Your task to perform on an android device: Open eBay Image 0: 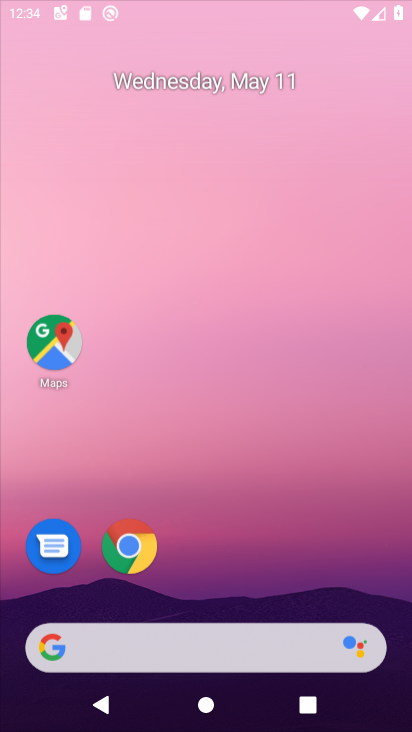
Step 0: click (209, 321)
Your task to perform on an android device: Open eBay Image 1: 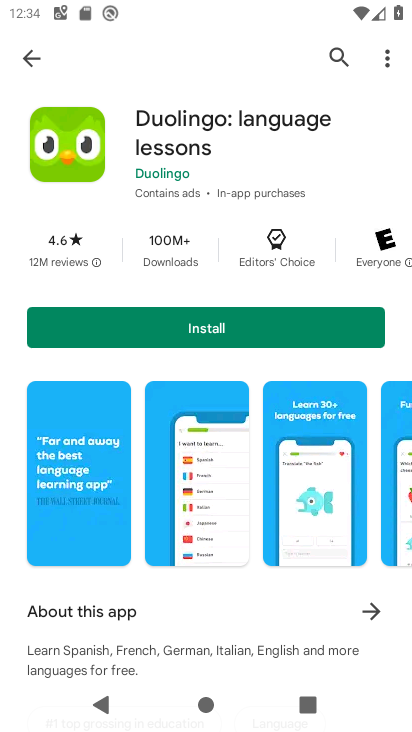
Step 1: press home button
Your task to perform on an android device: Open eBay Image 2: 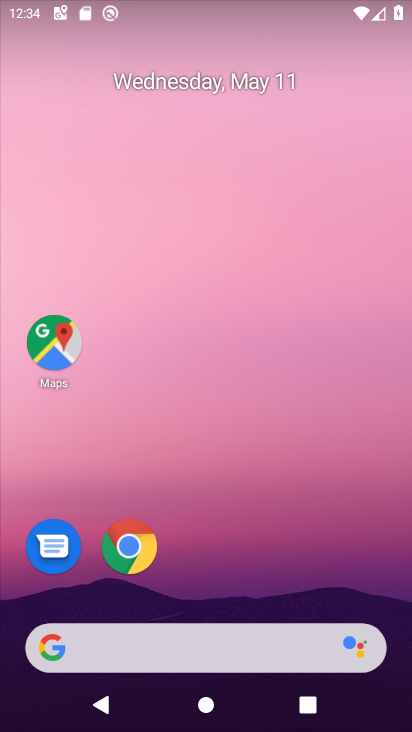
Step 2: drag from (254, 545) to (213, 266)
Your task to perform on an android device: Open eBay Image 3: 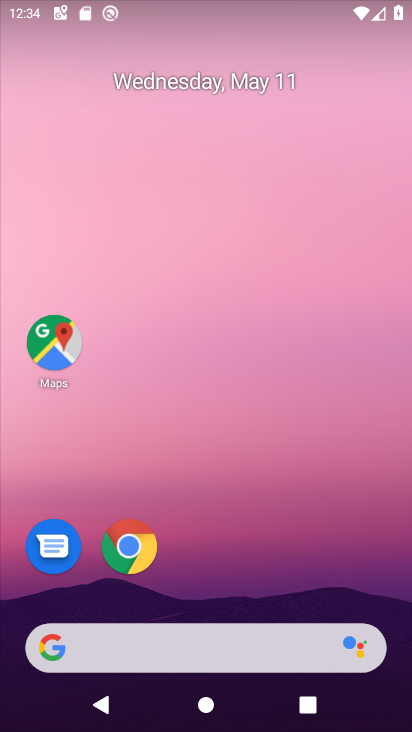
Step 3: drag from (228, 582) to (237, 271)
Your task to perform on an android device: Open eBay Image 4: 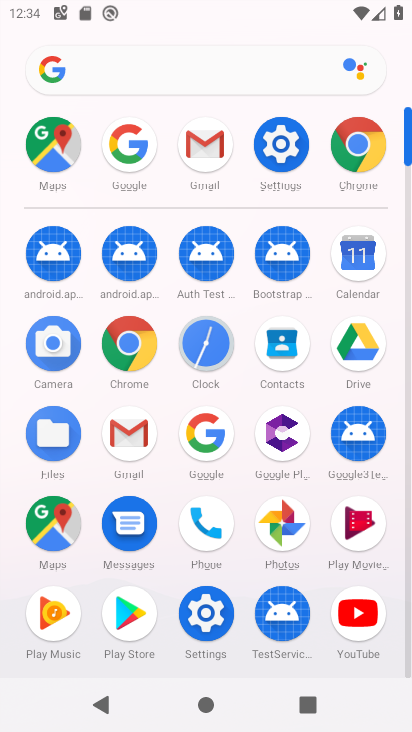
Step 4: click (350, 146)
Your task to perform on an android device: Open eBay Image 5: 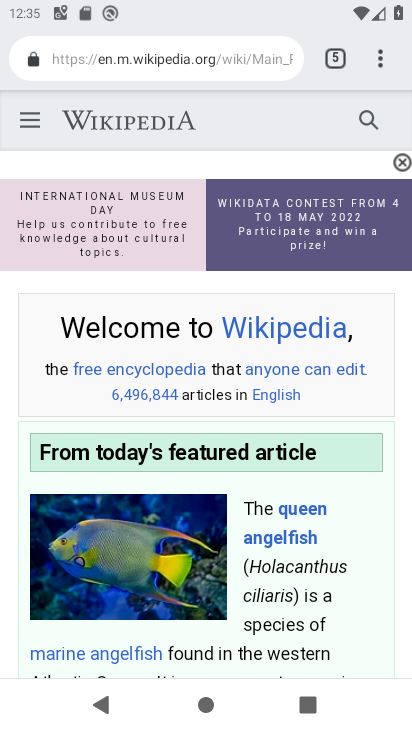
Step 5: click (367, 62)
Your task to perform on an android device: Open eBay Image 6: 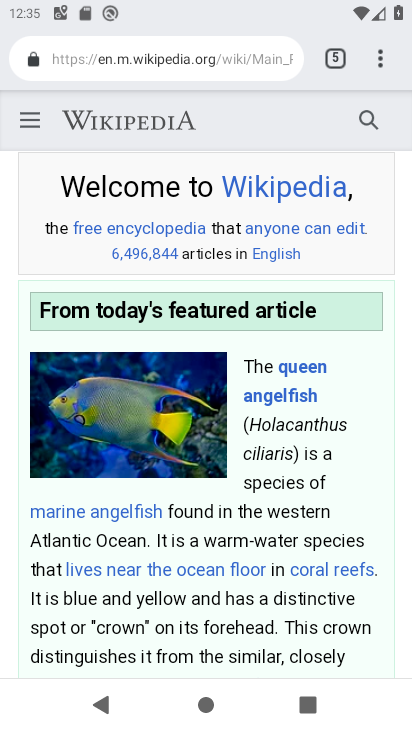
Step 6: click (367, 46)
Your task to perform on an android device: Open eBay Image 7: 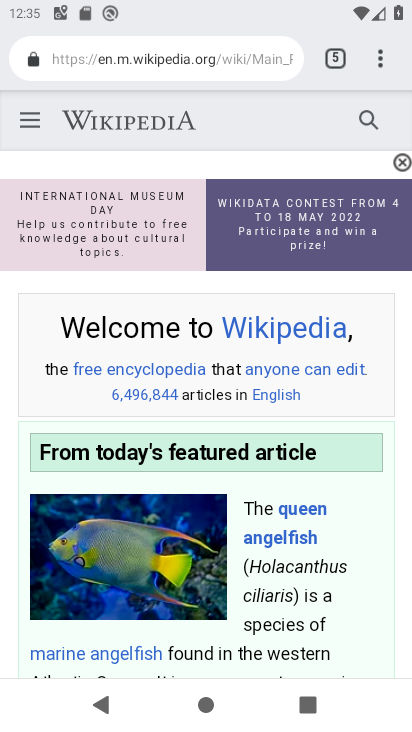
Step 7: click (368, 57)
Your task to perform on an android device: Open eBay Image 8: 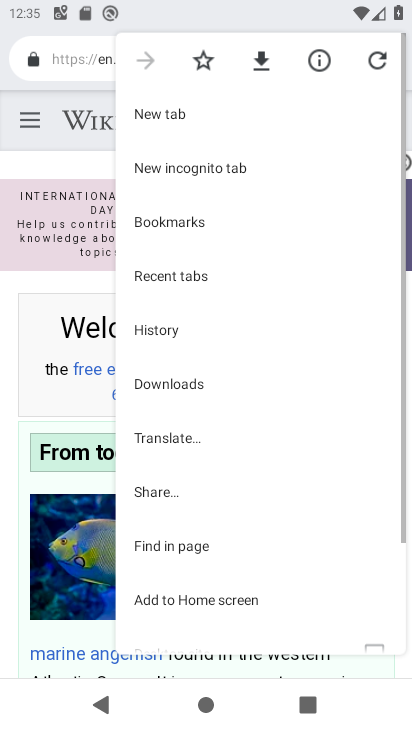
Step 8: click (174, 101)
Your task to perform on an android device: Open eBay Image 9: 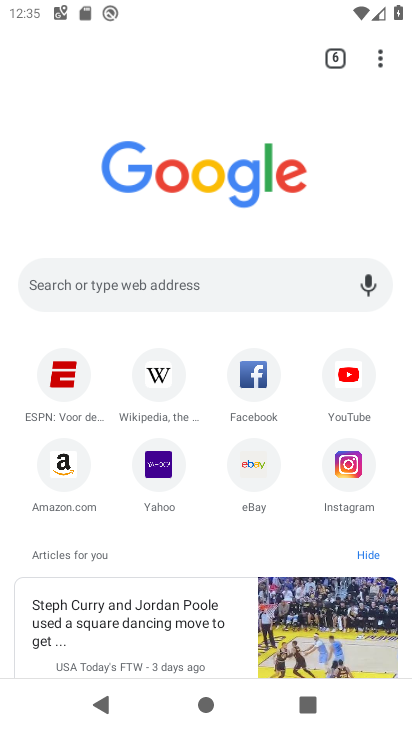
Step 9: click (254, 454)
Your task to perform on an android device: Open eBay Image 10: 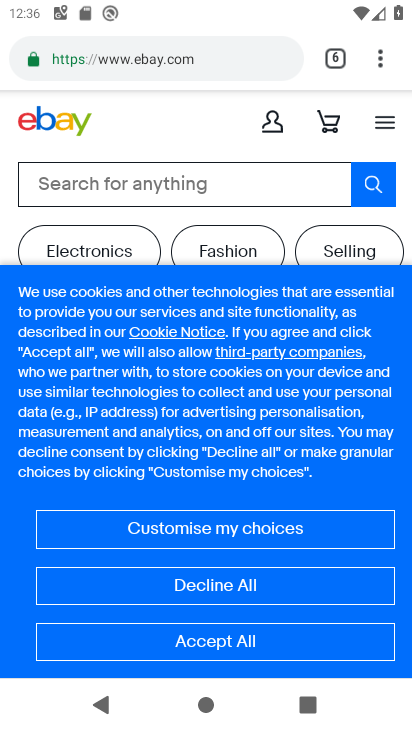
Step 10: task complete